Your task to perform on an android device: set default search engine in the chrome app Image 0: 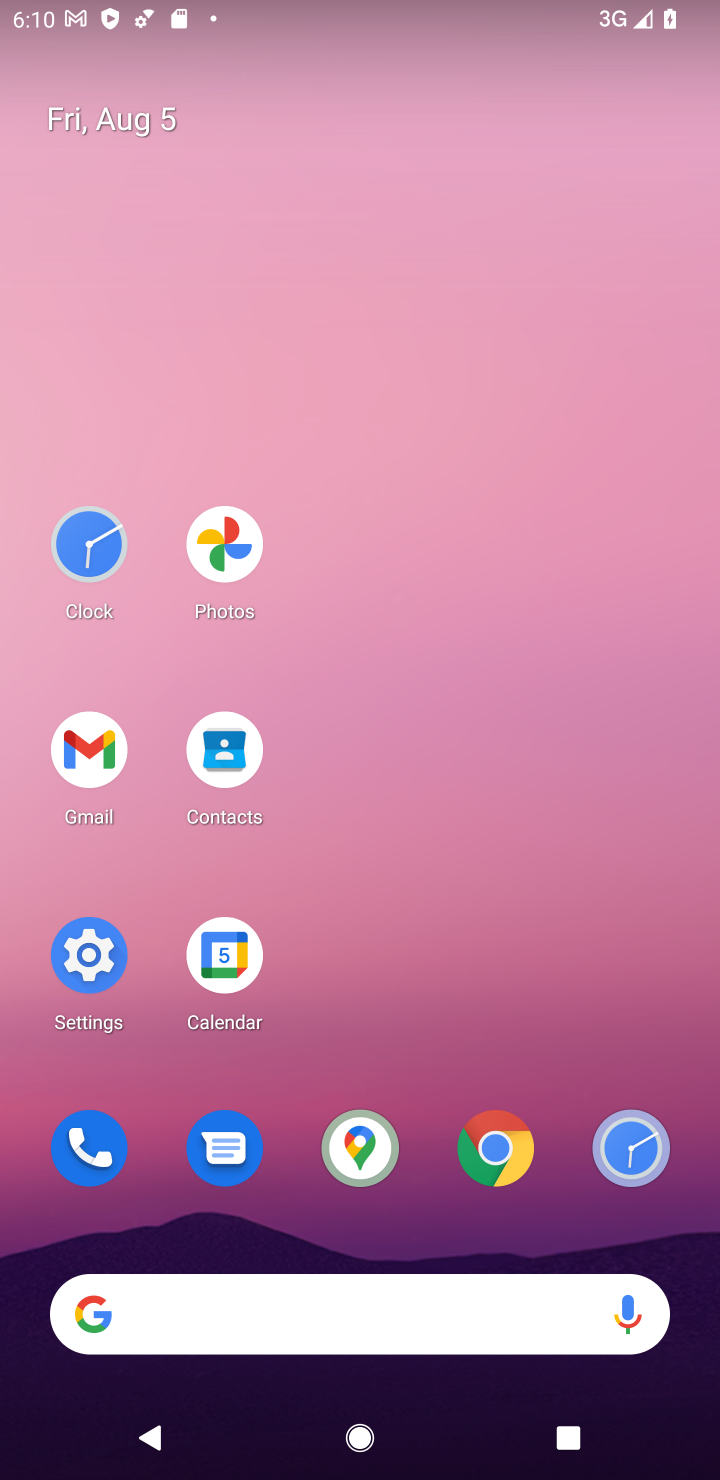
Step 0: click (491, 1150)
Your task to perform on an android device: set default search engine in the chrome app Image 1: 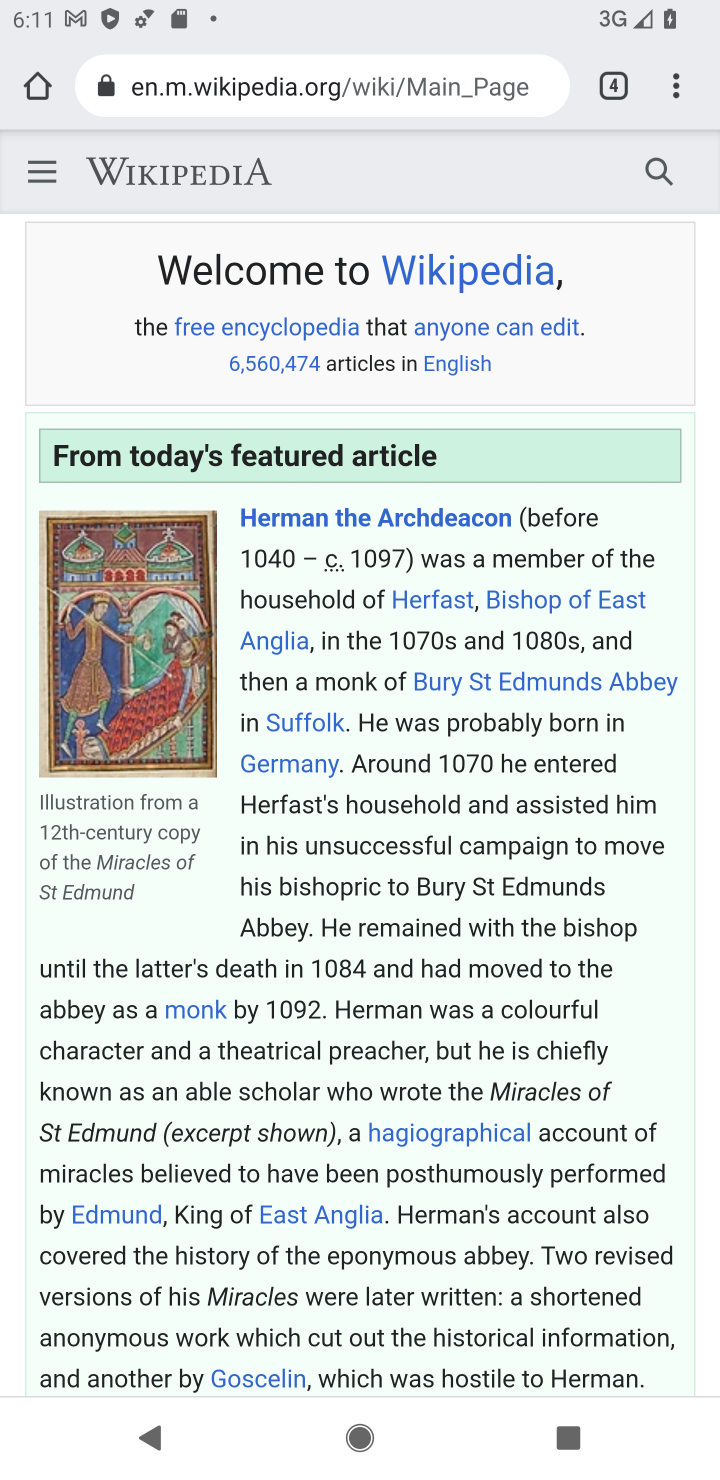
Step 1: click (681, 96)
Your task to perform on an android device: set default search engine in the chrome app Image 2: 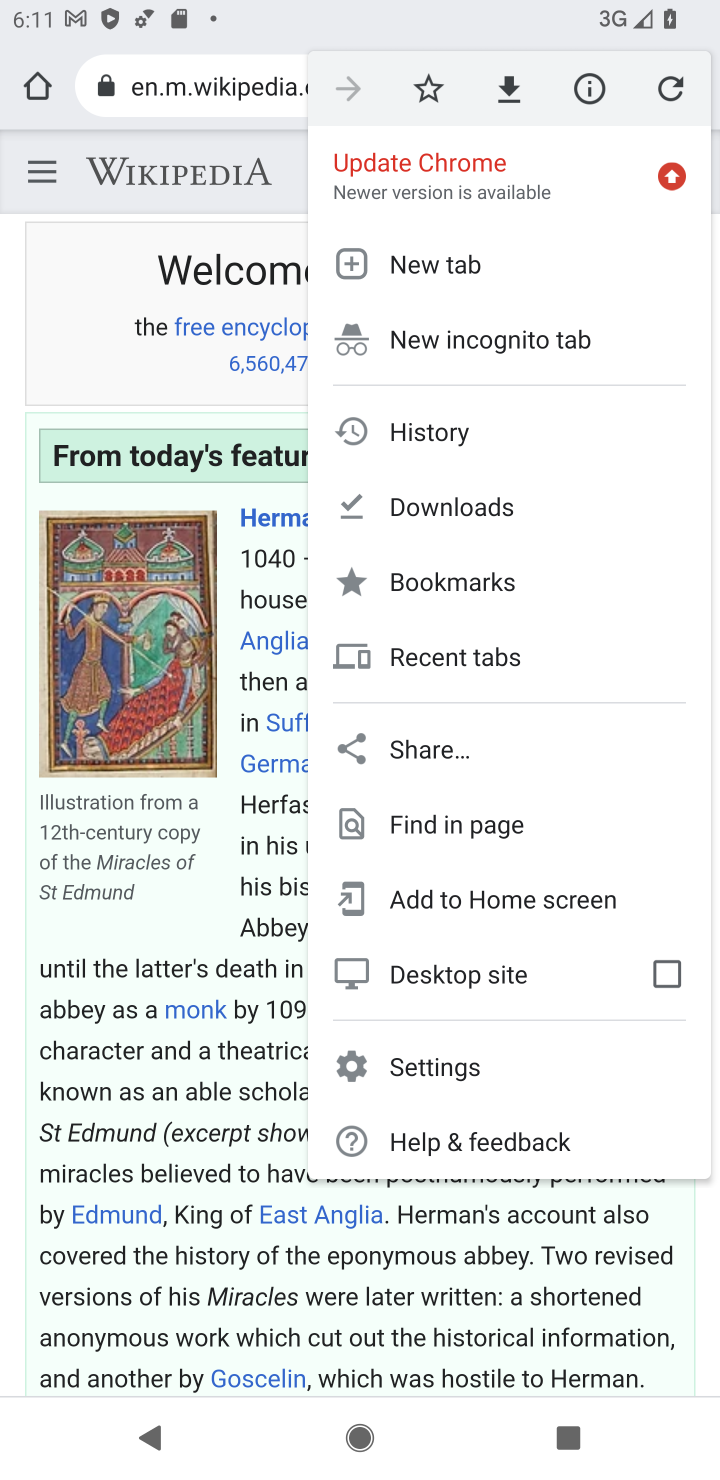
Step 2: click (422, 1062)
Your task to perform on an android device: set default search engine in the chrome app Image 3: 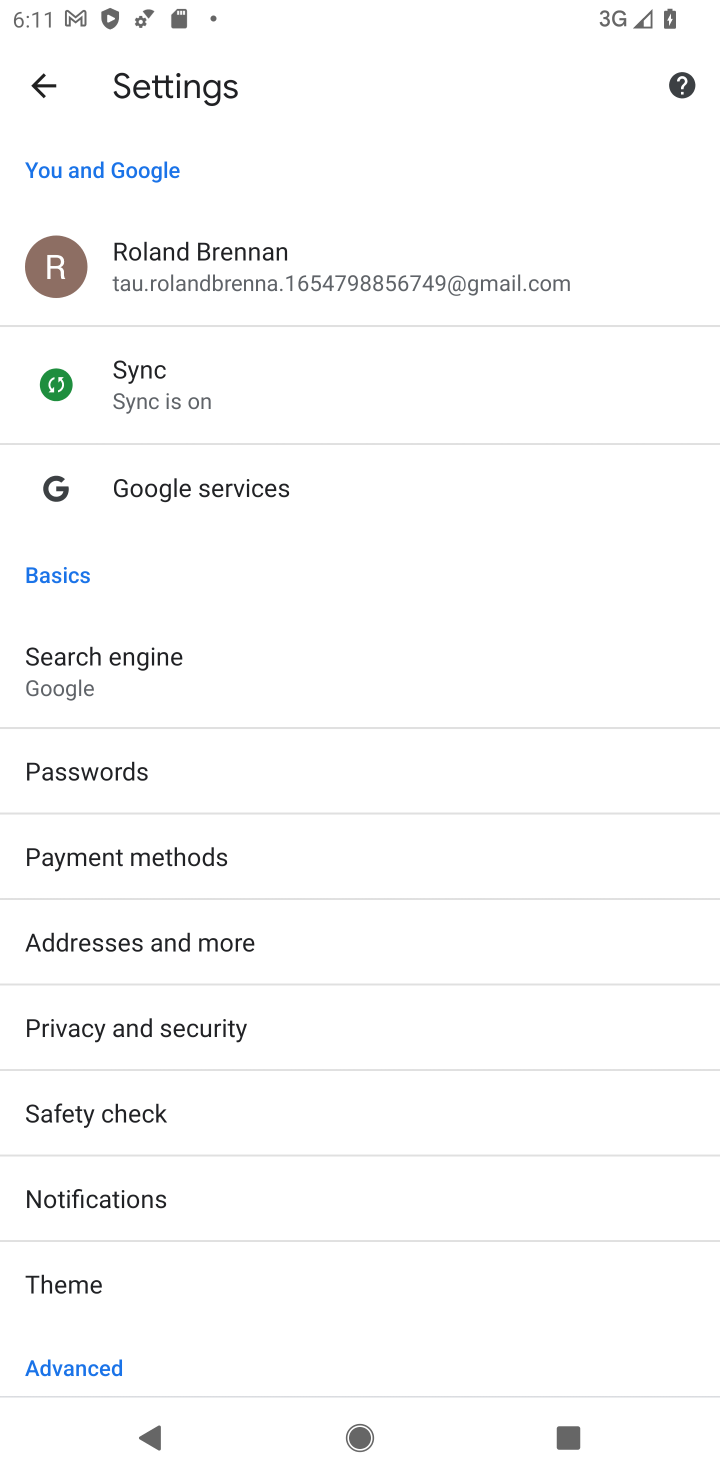
Step 3: click (103, 667)
Your task to perform on an android device: set default search engine in the chrome app Image 4: 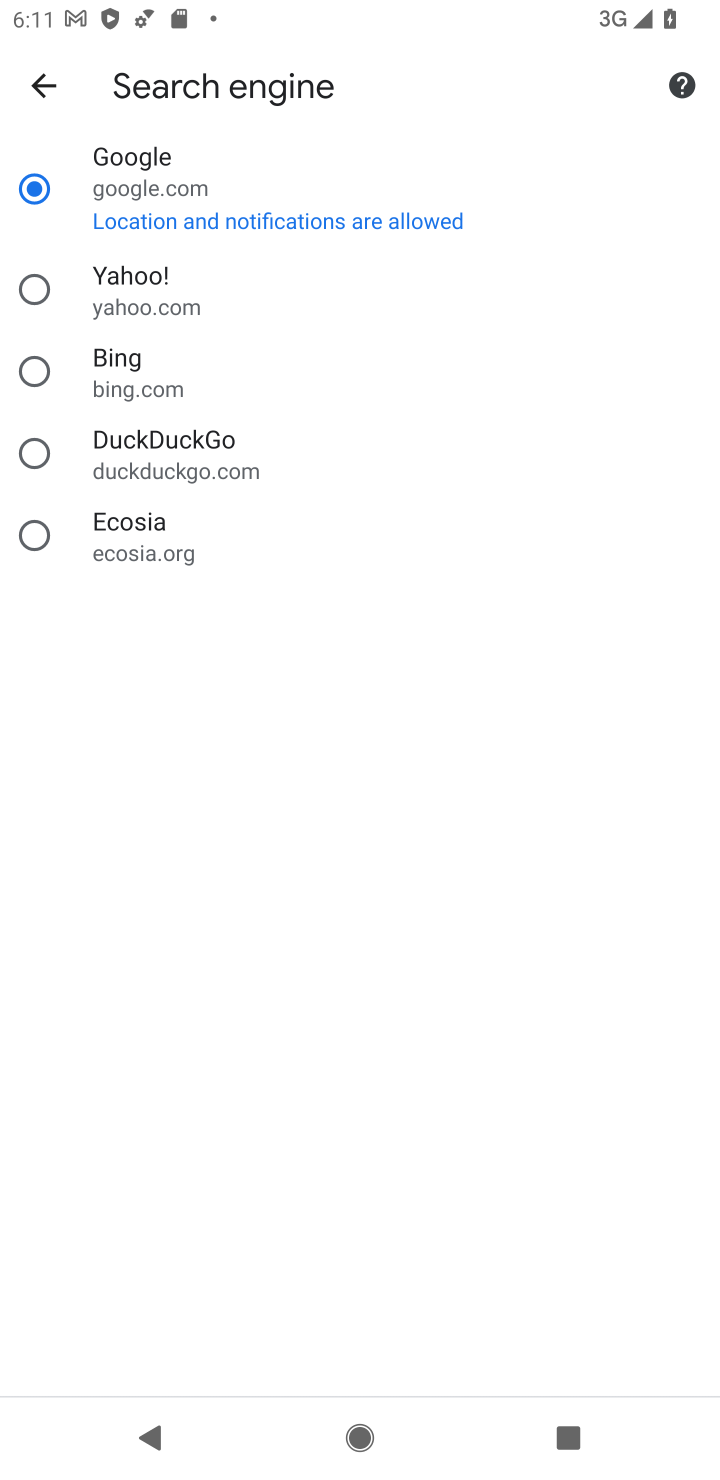
Step 4: task complete